Your task to perform on an android device: Go to Wikipedia Image 0: 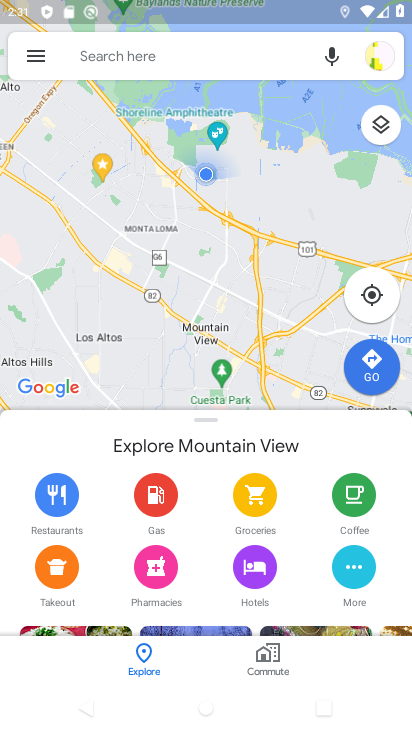
Step 0: press home button
Your task to perform on an android device: Go to Wikipedia Image 1: 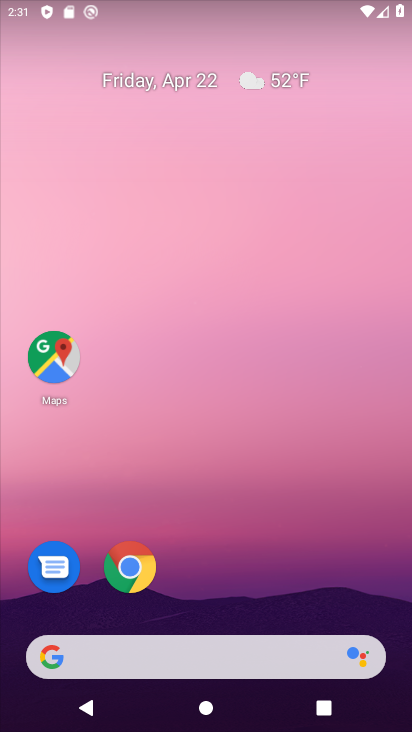
Step 1: click (135, 566)
Your task to perform on an android device: Go to Wikipedia Image 2: 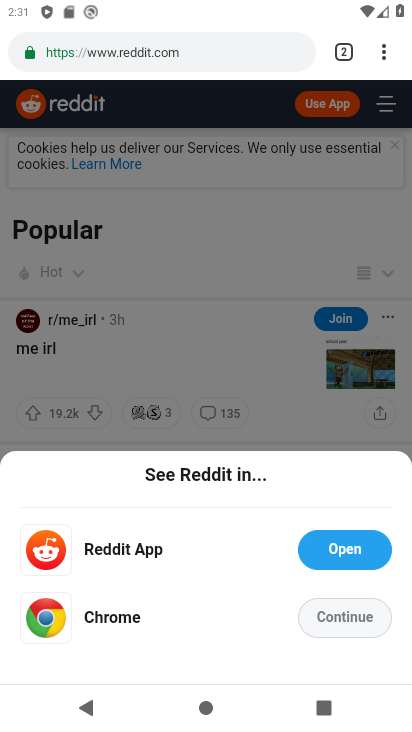
Step 2: click (380, 47)
Your task to perform on an android device: Go to Wikipedia Image 3: 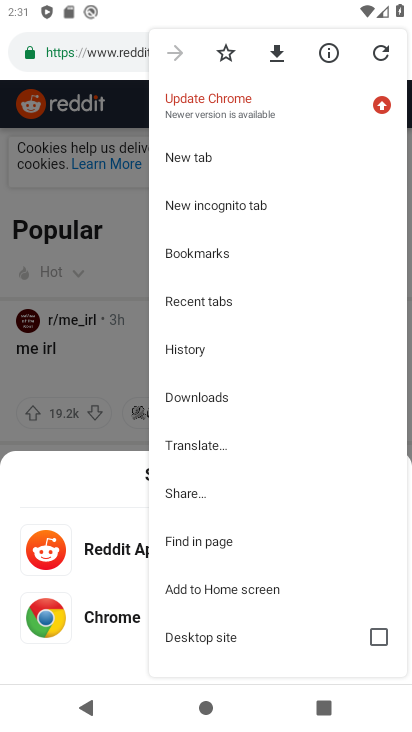
Step 3: click (188, 159)
Your task to perform on an android device: Go to Wikipedia Image 4: 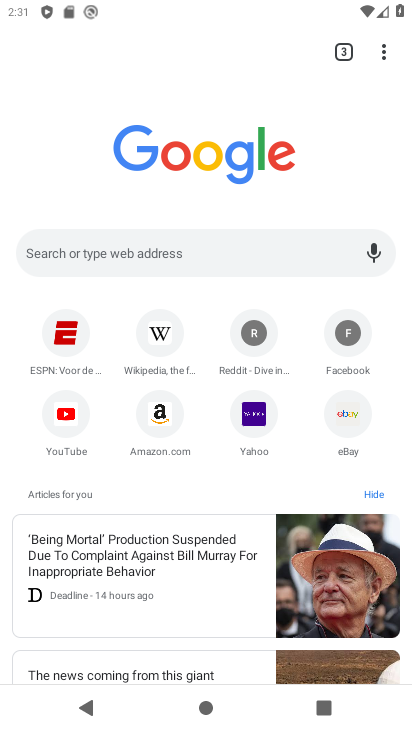
Step 4: click (153, 333)
Your task to perform on an android device: Go to Wikipedia Image 5: 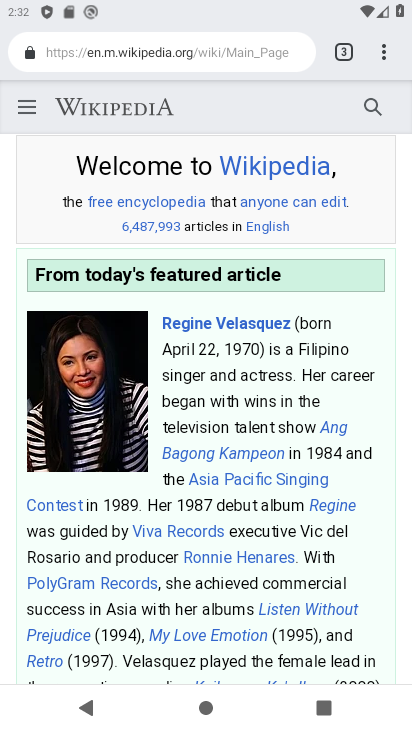
Step 5: task complete